Your task to perform on an android device: Go to sound settings Image 0: 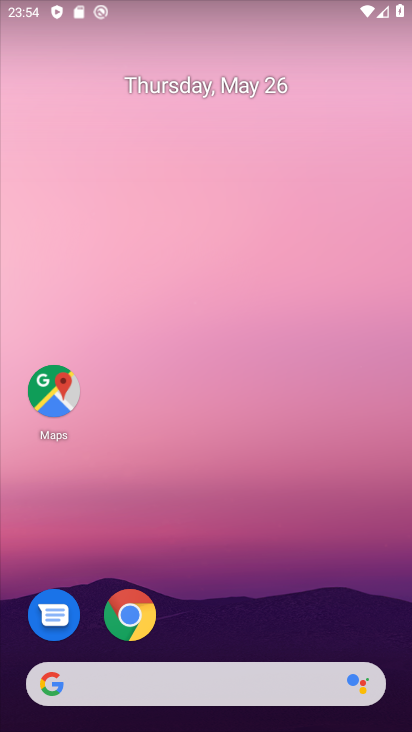
Step 0: drag from (345, 494) to (304, 269)
Your task to perform on an android device: Go to sound settings Image 1: 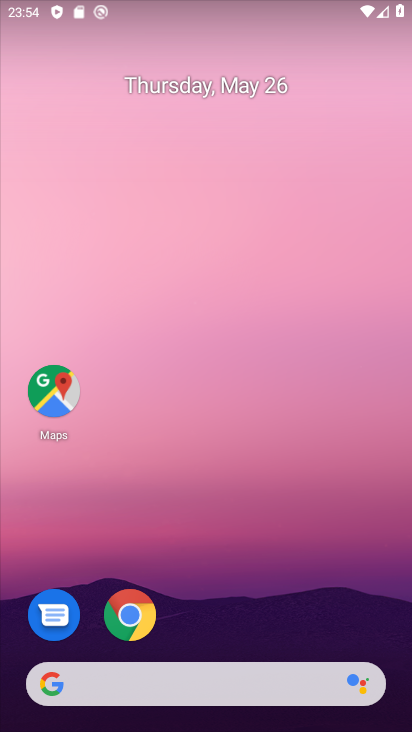
Step 1: drag from (221, 609) to (183, 5)
Your task to perform on an android device: Go to sound settings Image 2: 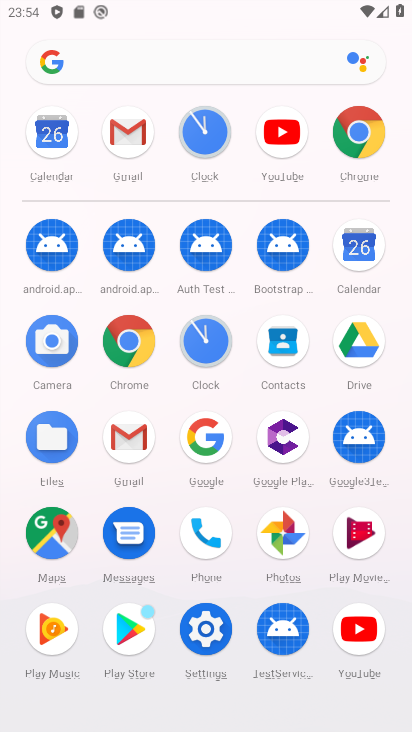
Step 2: click (208, 632)
Your task to perform on an android device: Go to sound settings Image 3: 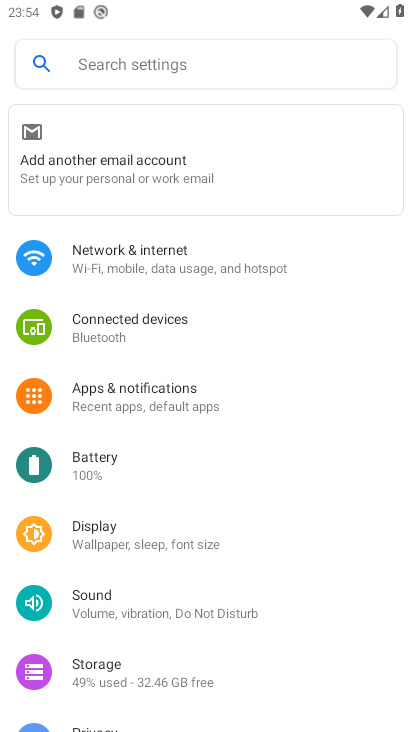
Step 3: drag from (122, 667) to (106, 349)
Your task to perform on an android device: Go to sound settings Image 4: 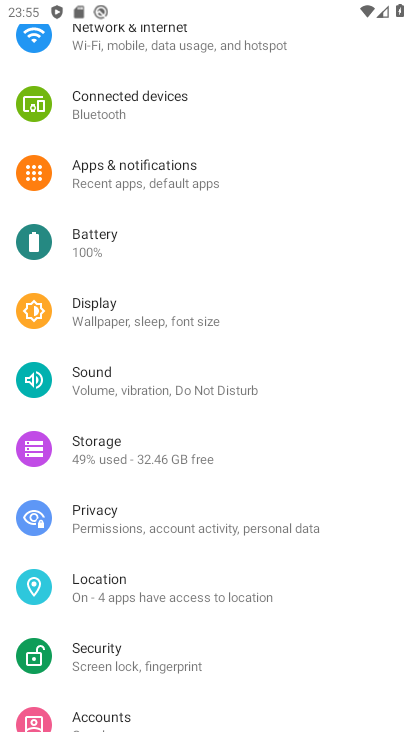
Step 4: click (78, 376)
Your task to perform on an android device: Go to sound settings Image 5: 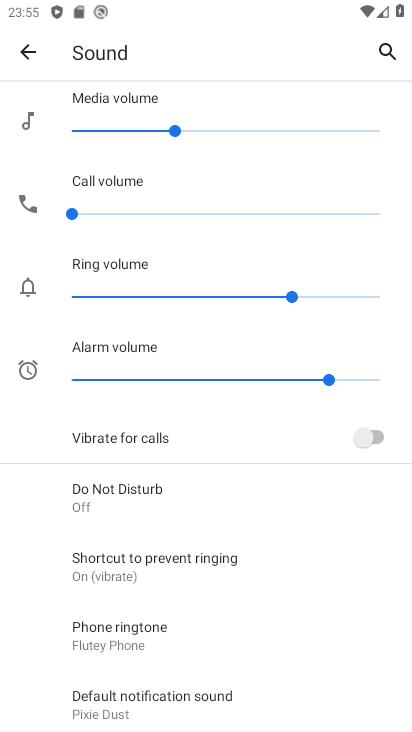
Step 5: task complete